Your task to perform on an android device: Open Chrome and go to the settings page Image 0: 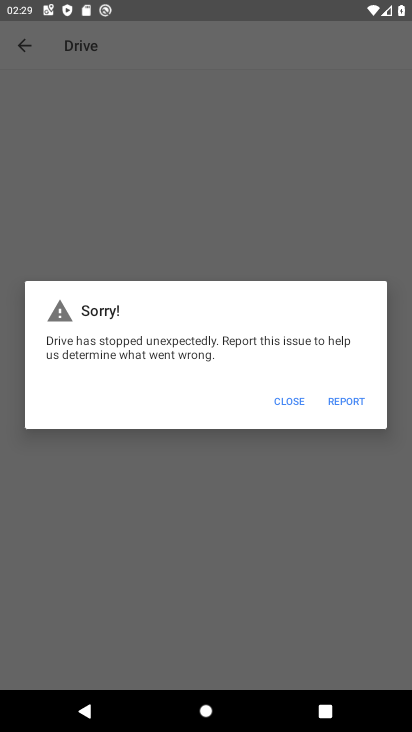
Step 0: press home button
Your task to perform on an android device: Open Chrome and go to the settings page Image 1: 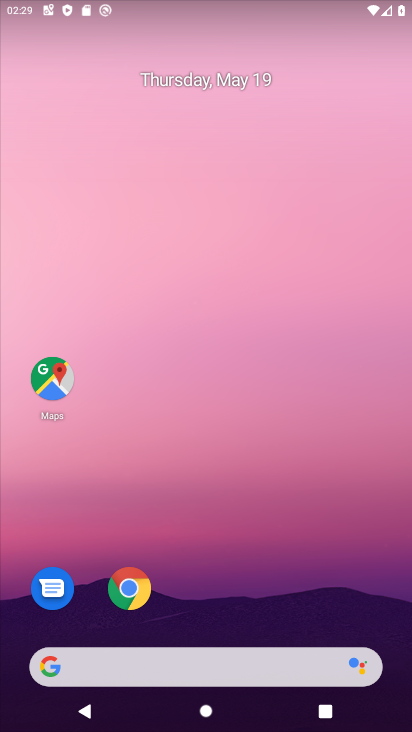
Step 1: click (129, 586)
Your task to perform on an android device: Open Chrome and go to the settings page Image 2: 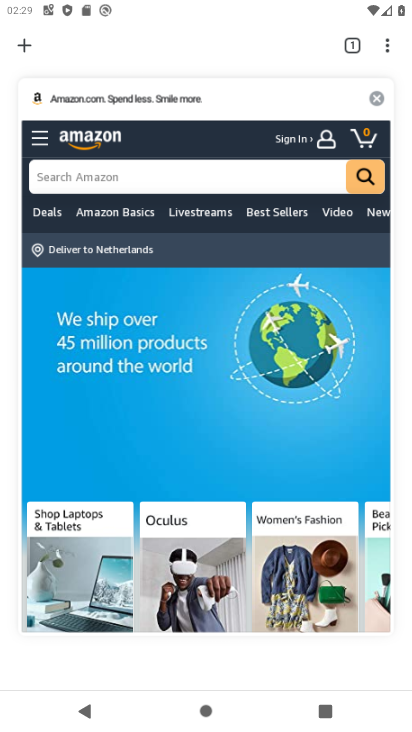
Step 2: click (378, 47)
Your task to perform on an android device: Open Chrome and go to the settings page Image 3: 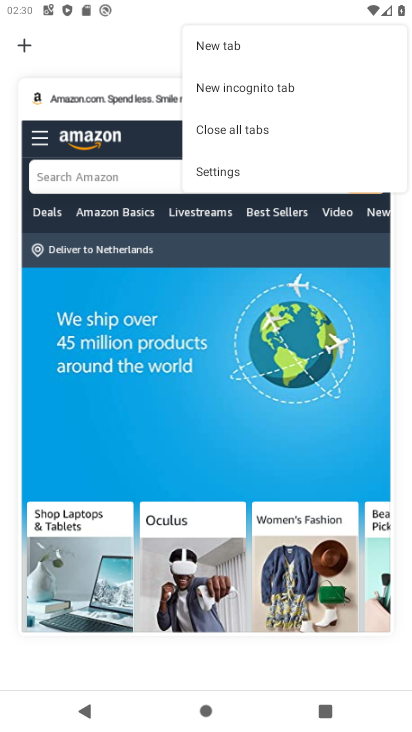
Step 3: click (221, 165)
Your task to perform on an android device: Open Chrome and go to the settings page Image 4: 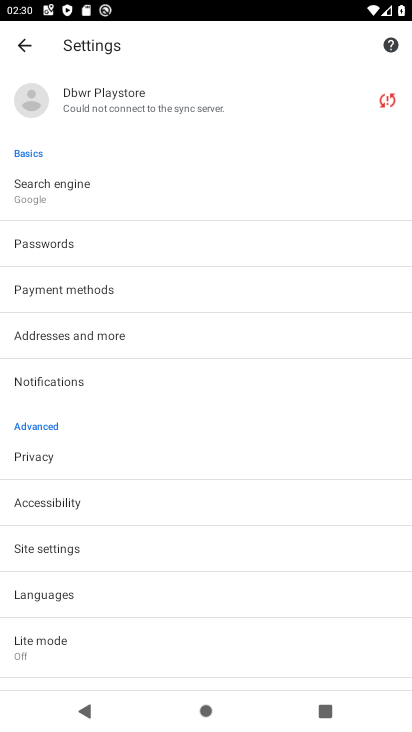
Step 4: task complete